Your task to perform on an android device: turn on the 24-hour format for clock Image 0: 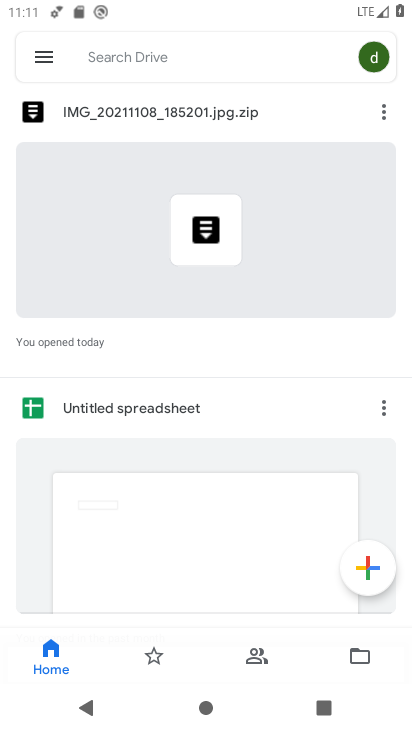
Step 0: press home button
Your task to perform on an android device: turn on the 24-hour format for clock Image 1: 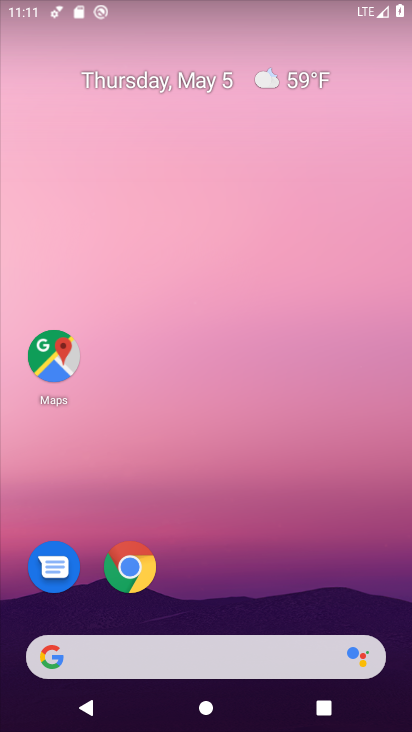
Step 1: drag from (352, 608) to (352, 3)
Your task to perform on an android device: turn on the 24-hour format for clock Image 2: 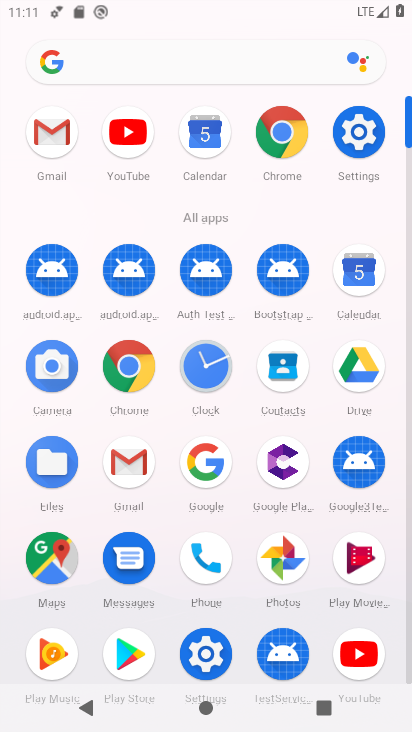
Step 2: click (211, 373)
Your task to perform on an android device: turn on the 24-hour format for clock Image 3: 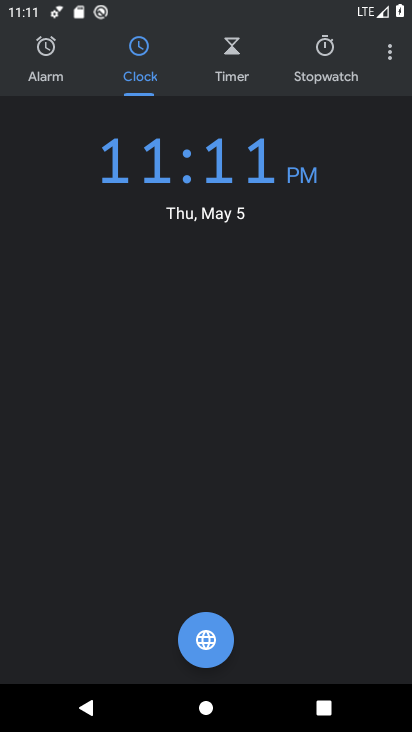
Step 3: click (391, 55)
Your task to perform on an android device: turn on the 24-hour format for clock Image 4: 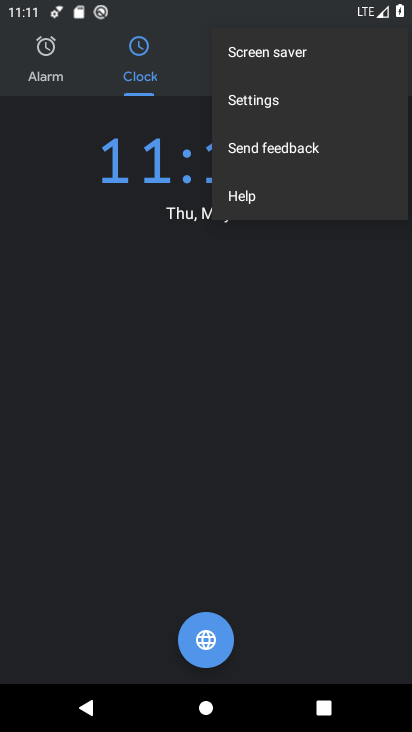
Step 4: click (268, 110)
Your task to perform on an android device: turn on the 24-hour format for clock Image 5: 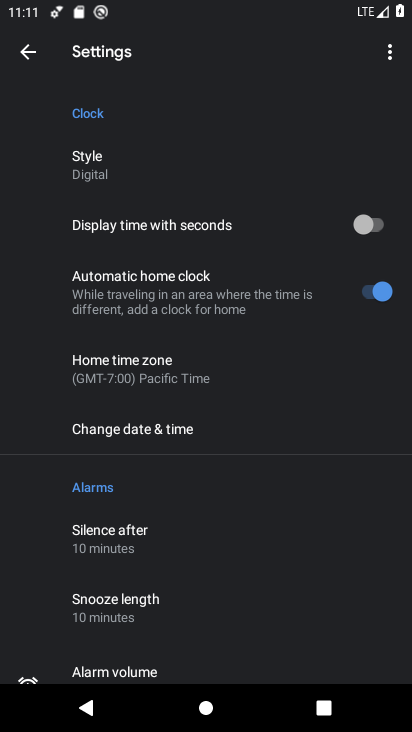
Step 5: click (100, 431)
Your task to perform on an android device: turn on the 24-hour format for clock Image 6: 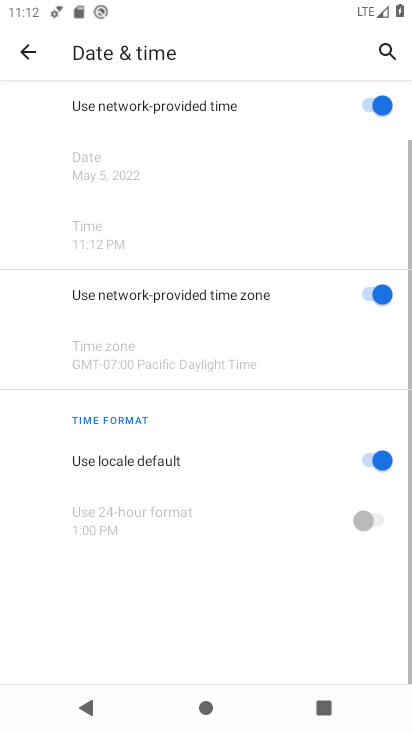
Step 6: click (387, 455)
Your task to perform on an android device: turn on the 24-hour format for clock Image 7: 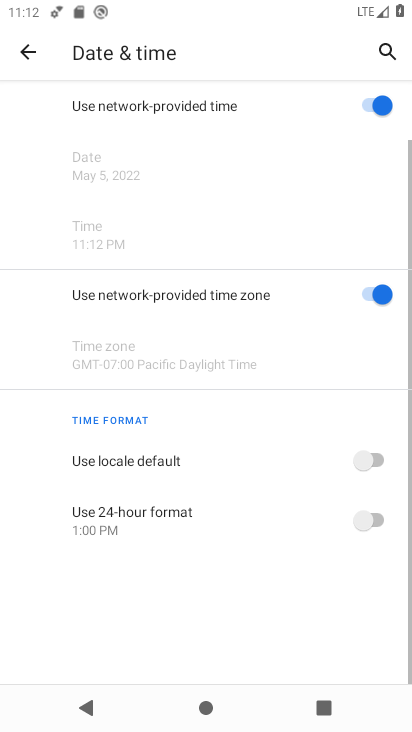
Step 7: click (367, 526)
Your task to perform on an android device: turn on the 24-hour format for clock Image 8: 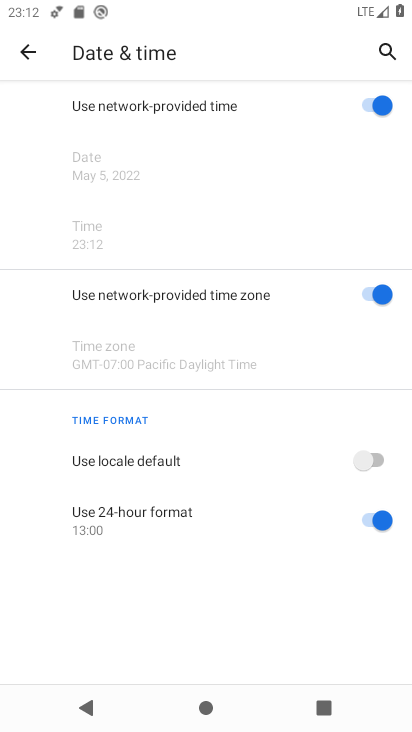
Step 8: task complete